Your task to perform on an android device: Open the phone app and click the voicemail tab. Image 0: 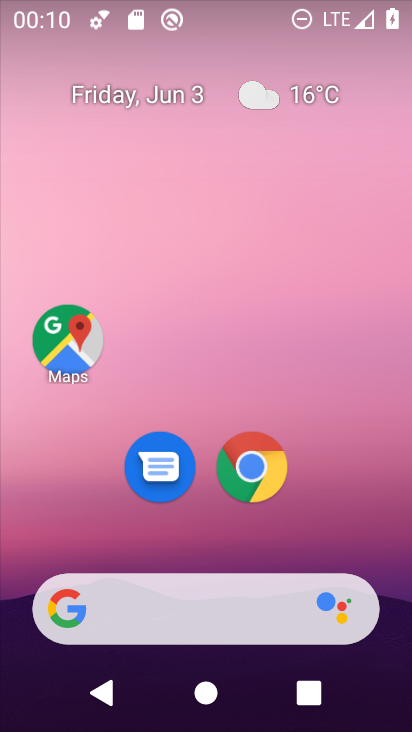
Step 0: drag from (403, 588) to (331, 146)
Your task to perform on an android device: Open the phone app and click the voicemail tab. Image 1: 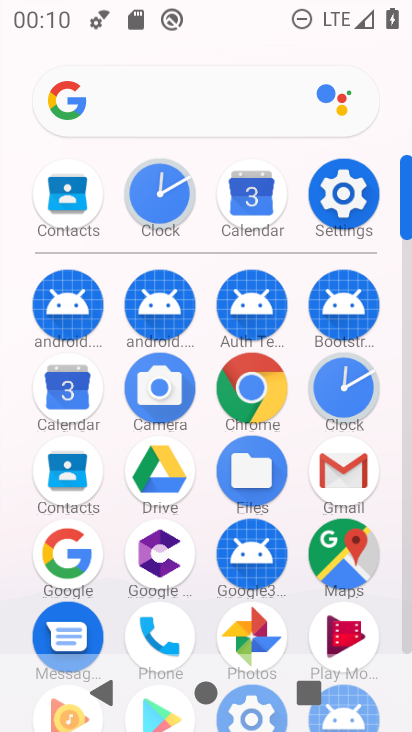
Step 1: click (406, 622)
Your task to perform on an android device: Open the phone app and click the voicemail tab. Image 2: 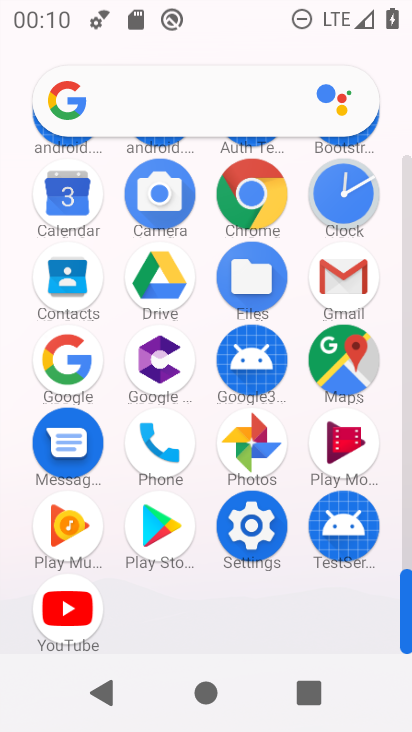
Step 2: click (154, 443)
Your task to perform on an android device: Open the phone app and click the voicemail tab. Image 3: 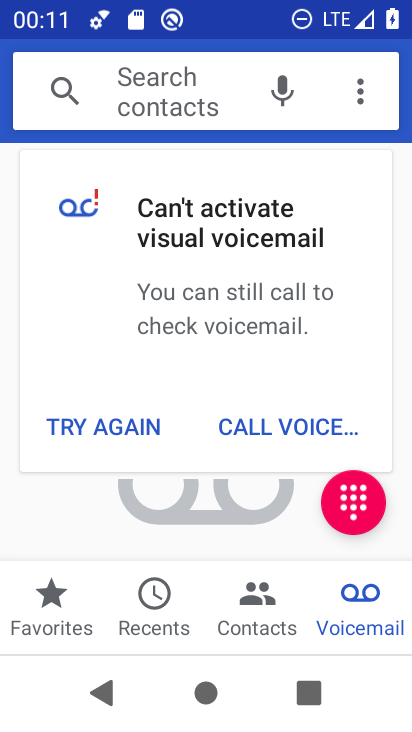
Step 3: task complete